Your task to perform on an android device: Clear all items from cart on walmart.com. Add "bose soundlink" to the cart on walmart.com, then select checkout. Image 0: 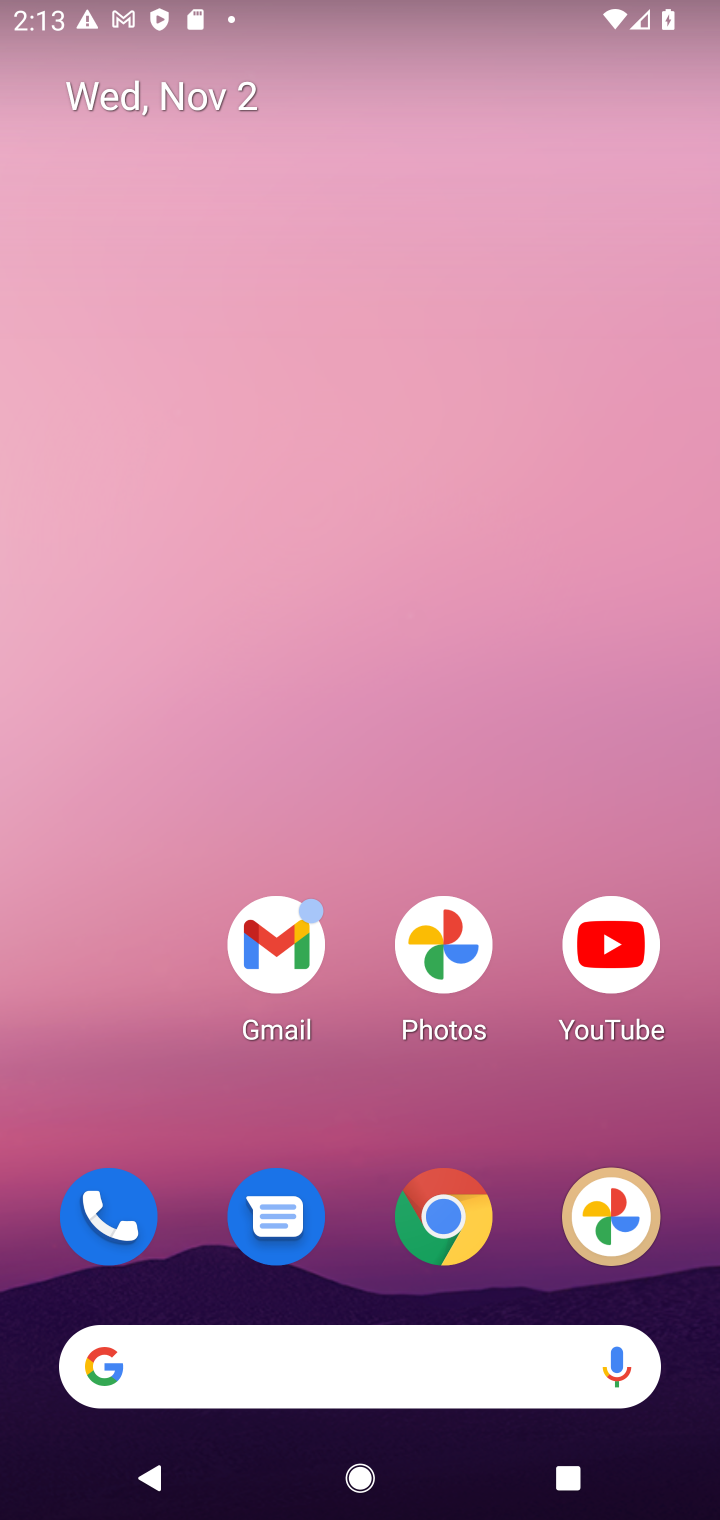
Step 0: click (429, 1223)
Your task to perform on an android device: Clear all items from cart on walmart.com. Add "bose soundlink" to the cart on walmart.com, then select checkout. Image 1: 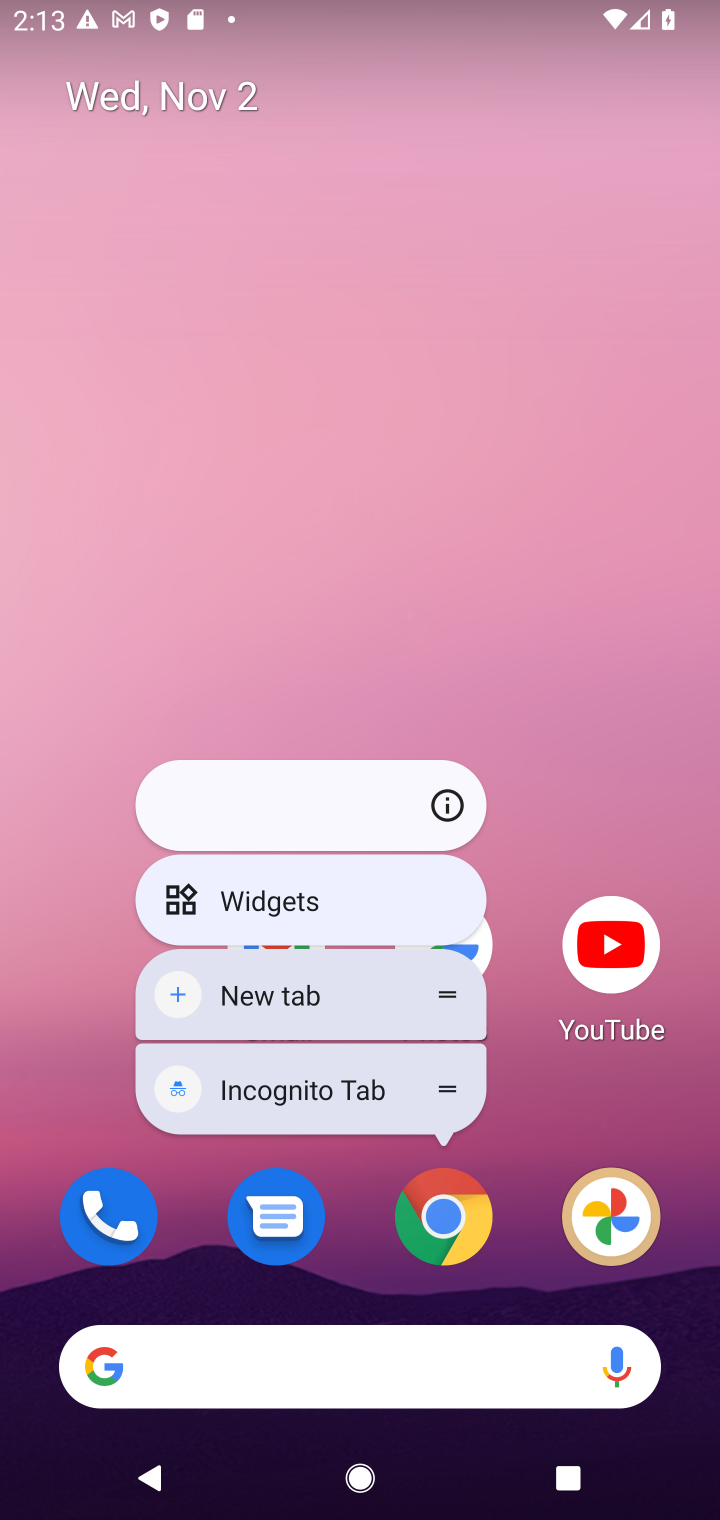
Step 1: click (439, 1199)
Your task to perform on an android device: Clear all items from cart on walmart.com. Add "bose soundlink" to the cart on walmart.com, then select checkout. Image 2: 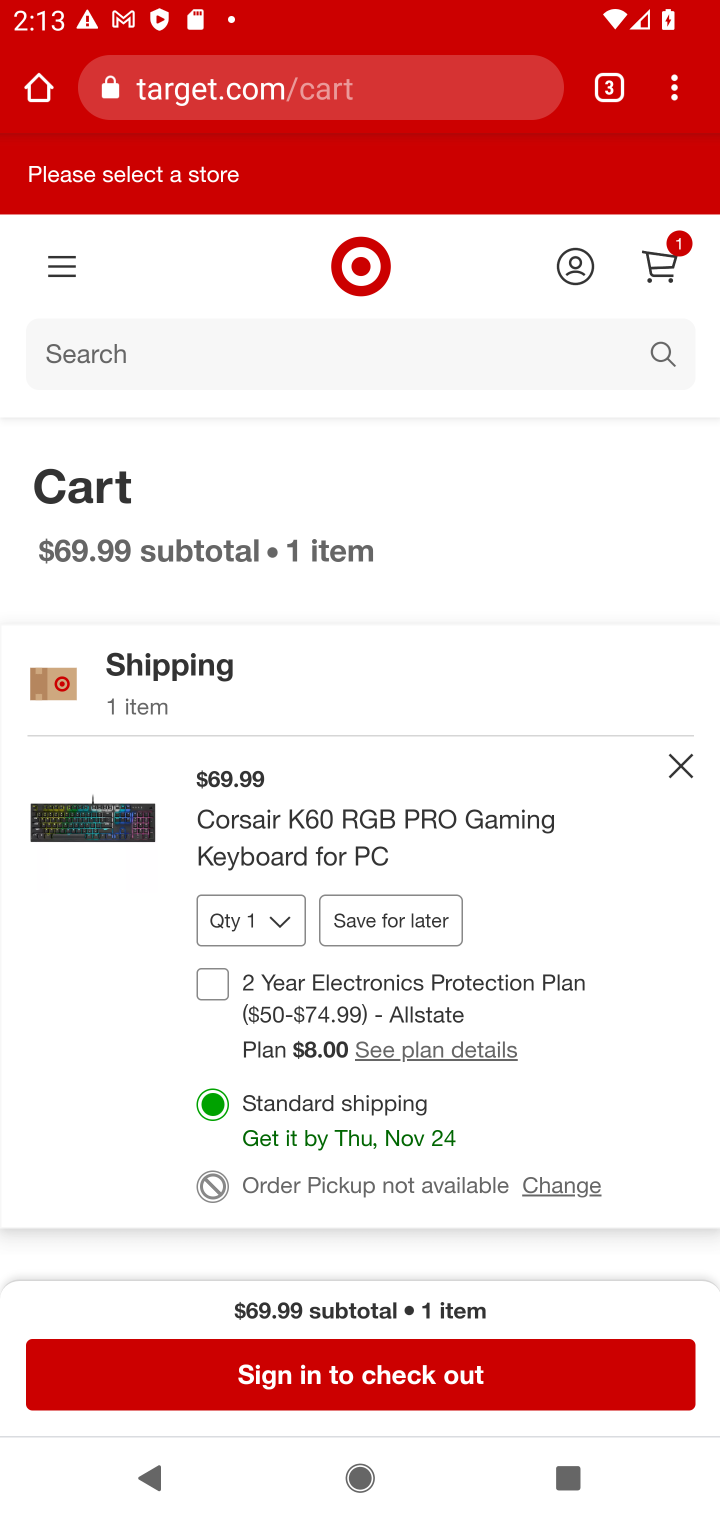
Step 2: click (301, 83)
Your task to perform on an android device: Clear all items from cart on walmart.com. Add "bose soundlink" to the cart on walmart.com, then select checkout. Image 3: 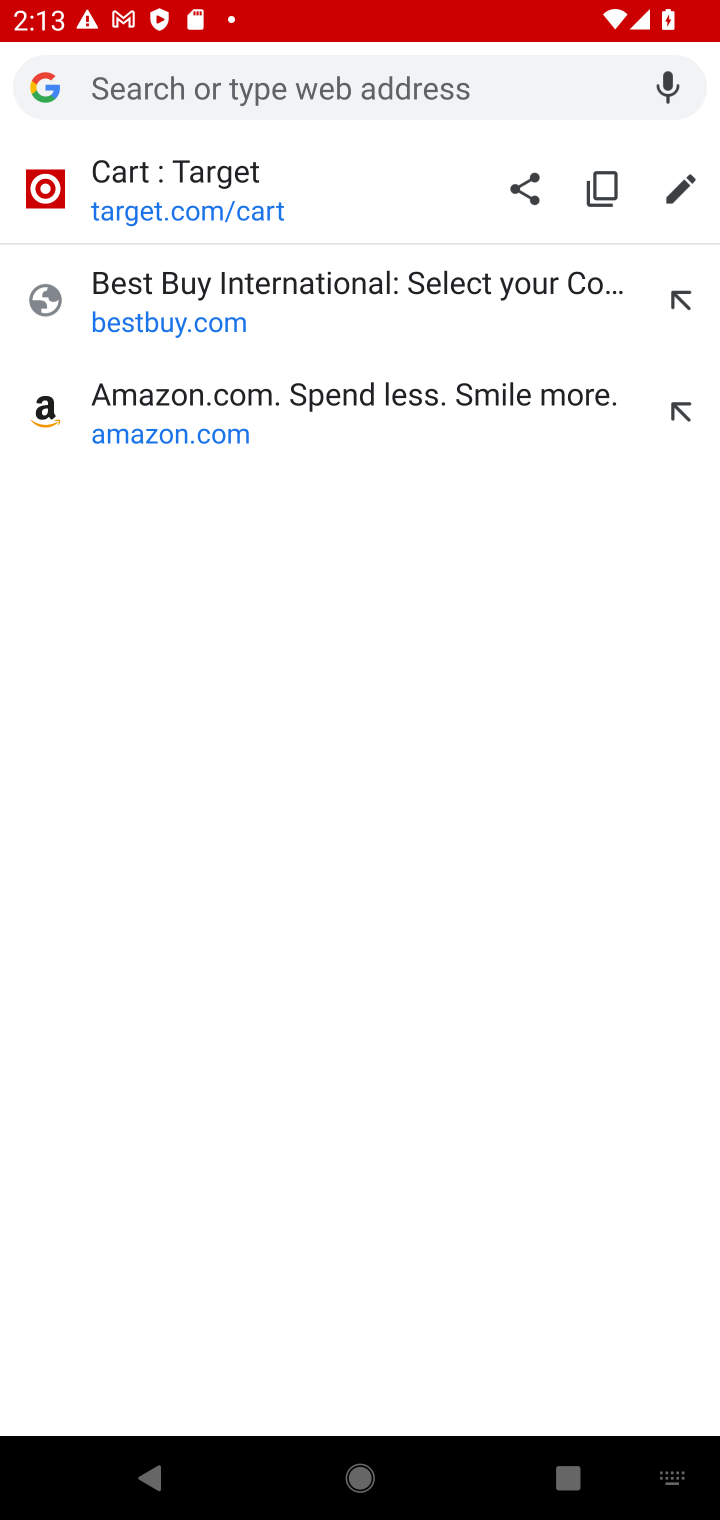
Step 3: type "walmart"
Your task to perform on an android device: Clear all items from cart on walmart.com. Add "bose soundlink" to the cart on walmart.com, then select checkout. Image 4: 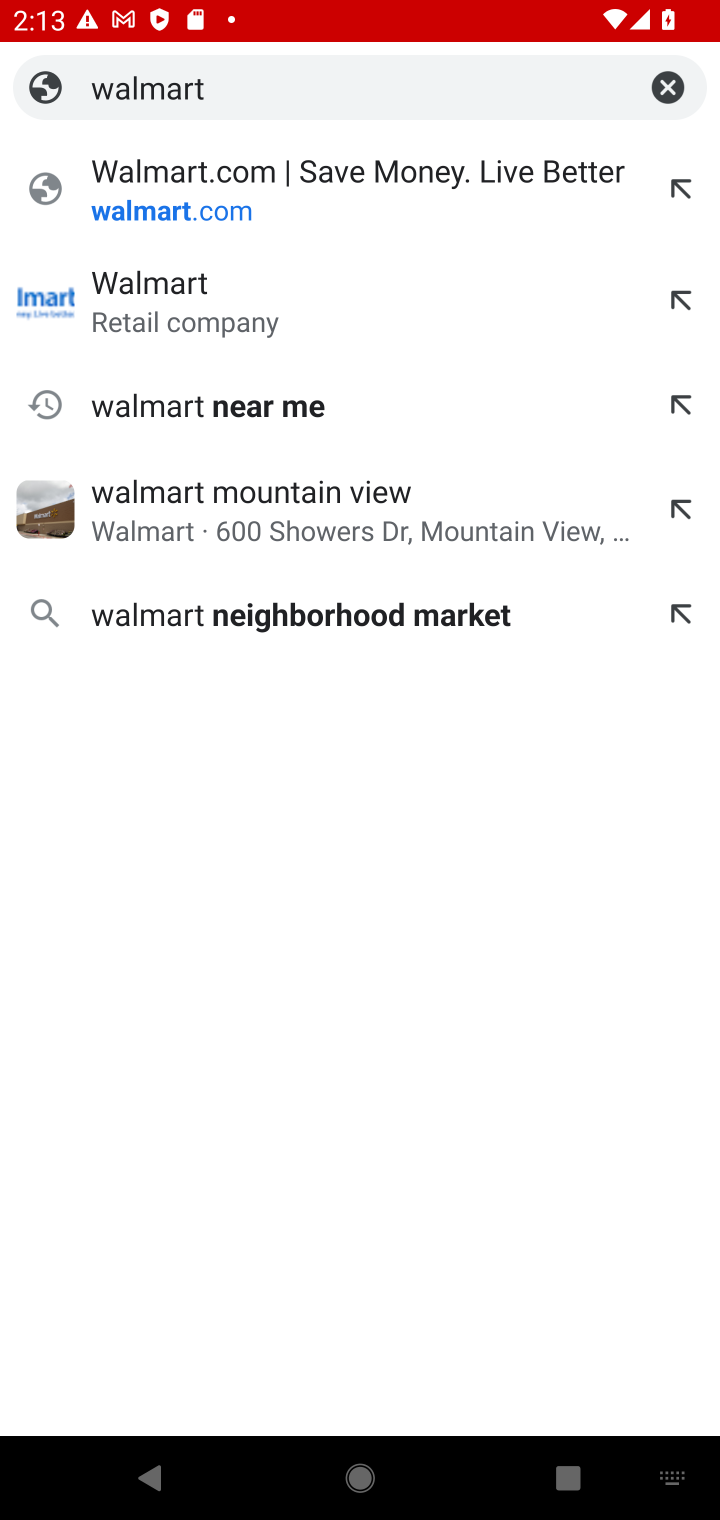
Step 4: click (158, 165)
Your task to perform on an android device: Clear all items from cart on walmart.com. Add "bose soundlink" to the cart on walmart.com, then select checkout. Image 5: 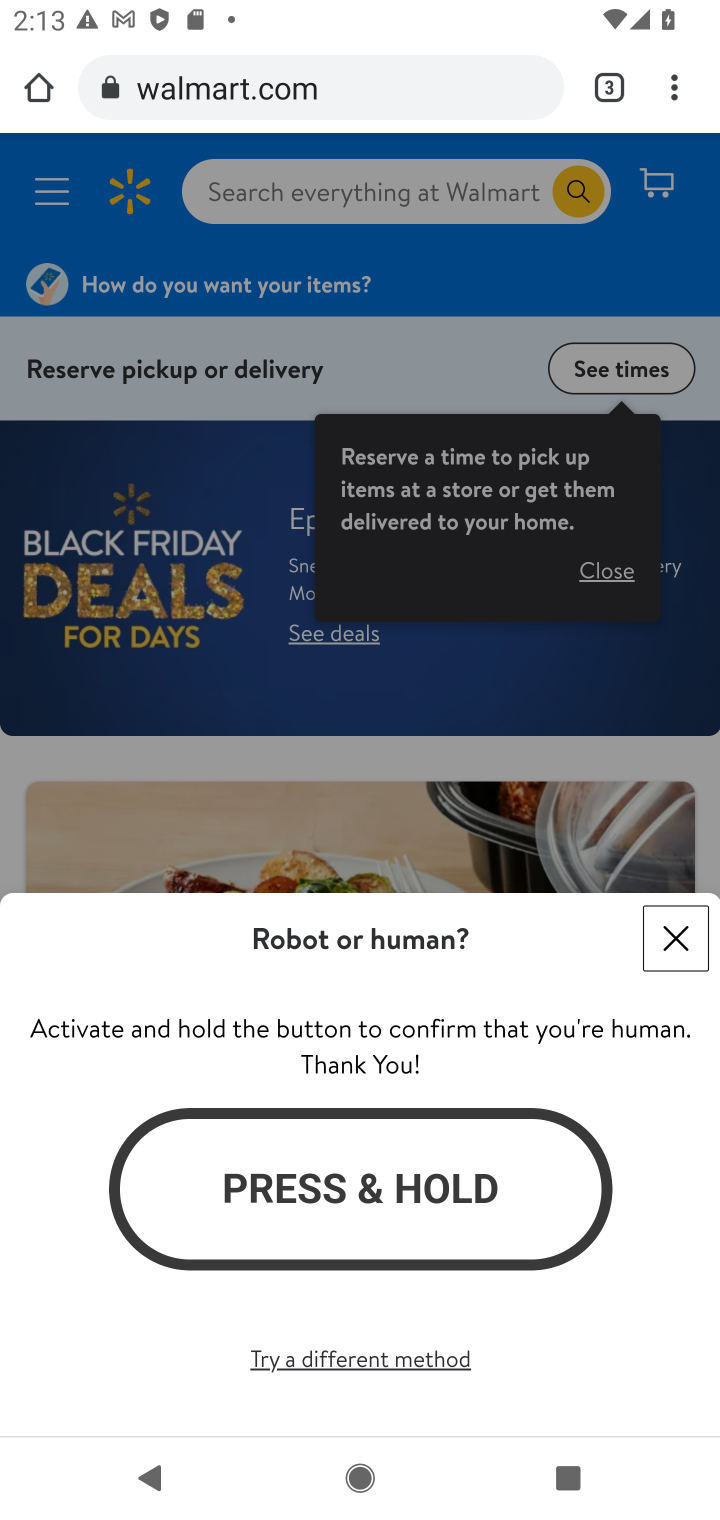
Step 5: click (661, 924)
Your task to perform on an android device: Clear all items from cart on walmart.com. Add "bose soundlink" to the cart on walmart.com, then select checkout. Image 6: 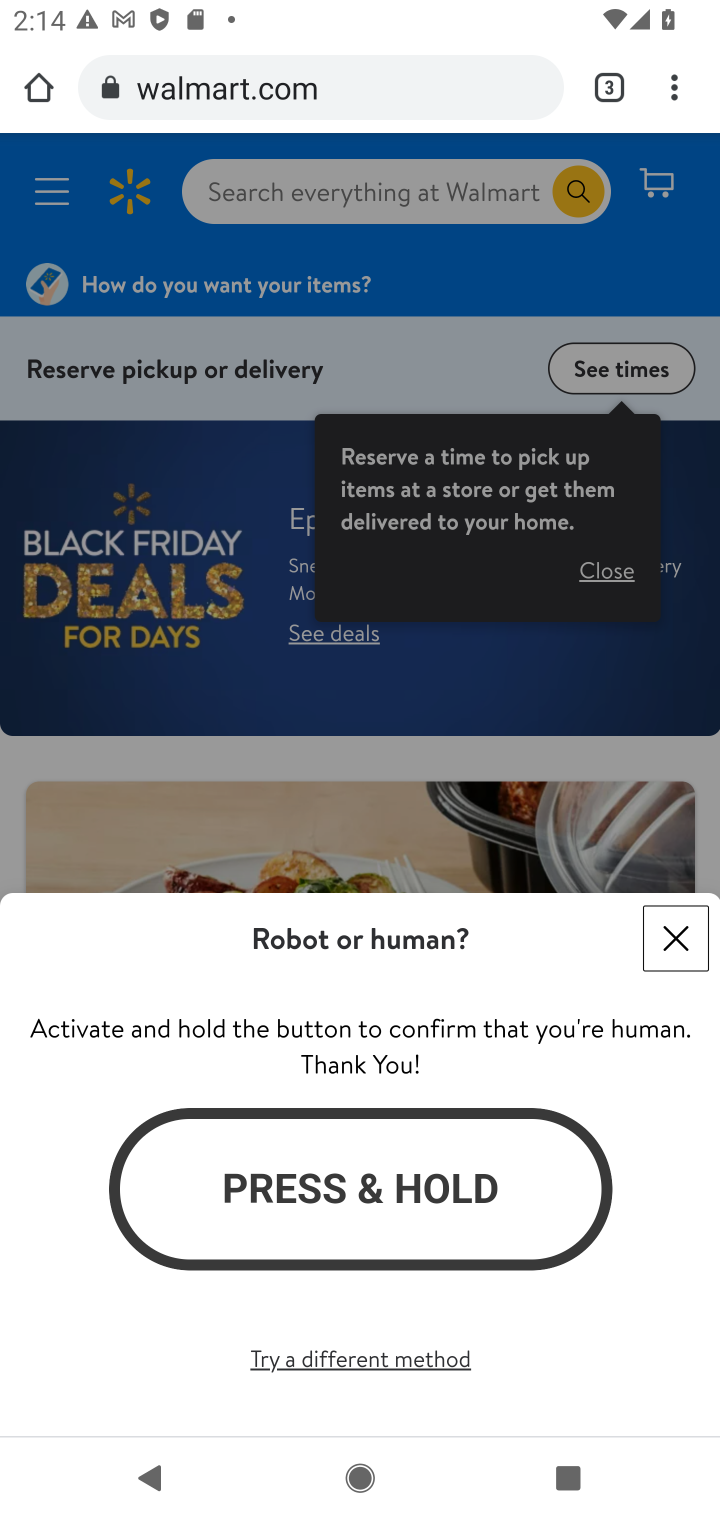
Step 6: click (387, 1192)
Your task to perform on an android device: Clear all items from cart on walmart.com. Add "bose soundlink" to the cart on walmart.com, then select checkout. Image 7: 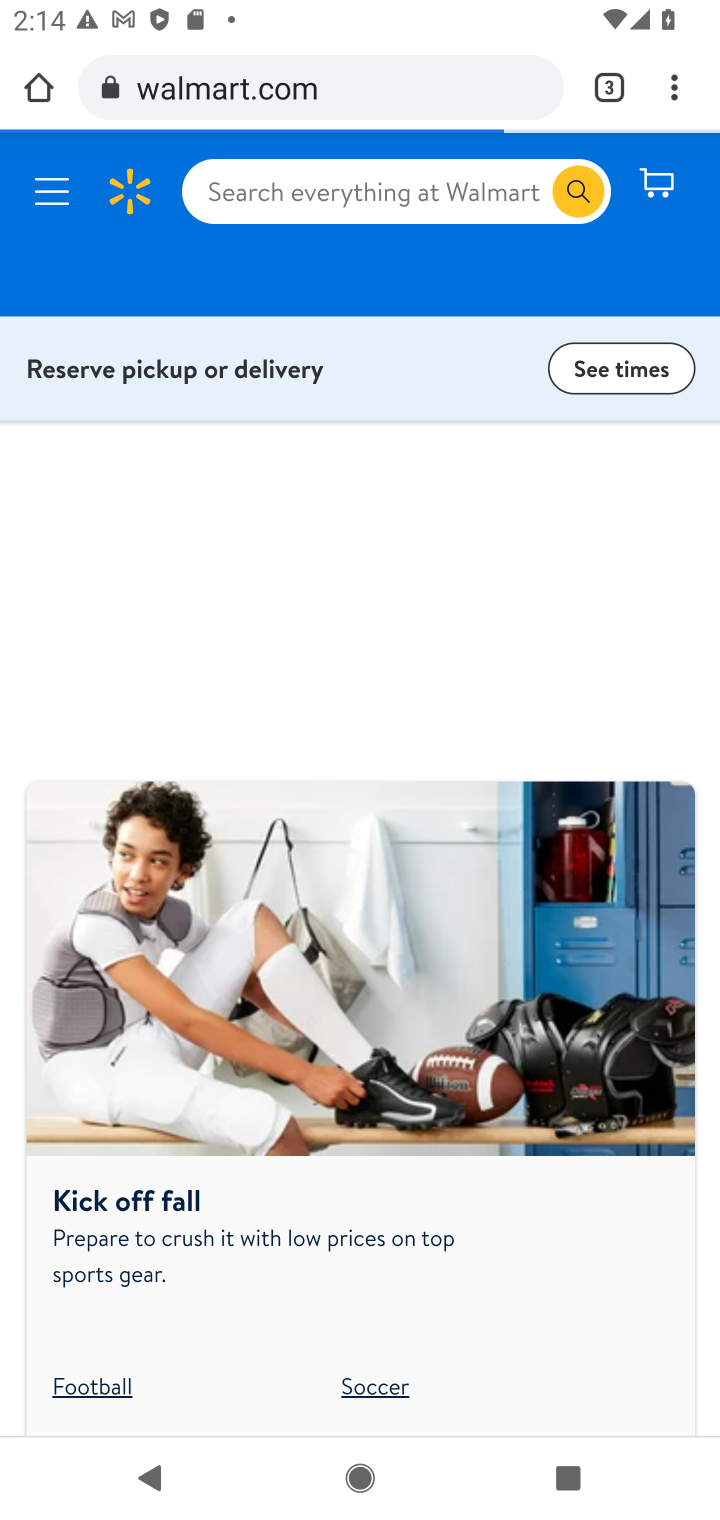
Step 7: click (681, 1156)
Your task to perform on an android device: Clear all items from cart on walmart.com. Add "bose soundlink" to the cart on walmart.com, then select checkout. Image 8: 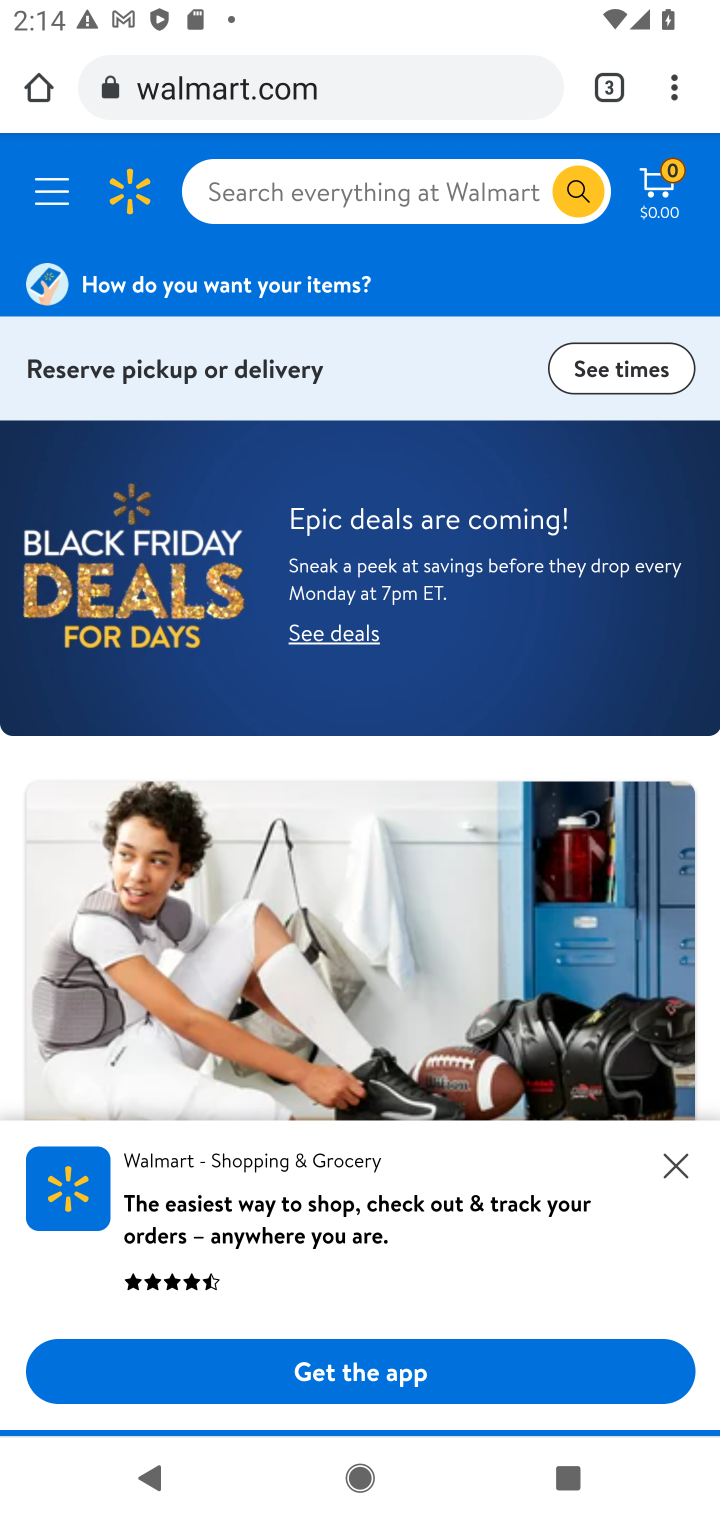
Step 8: click (437, 195)
Your task to perform on an android device: Clear all items from cart on walmart.com. Add "bose soundlink" to the cart on walmart.com, then select checkout. Image 9: 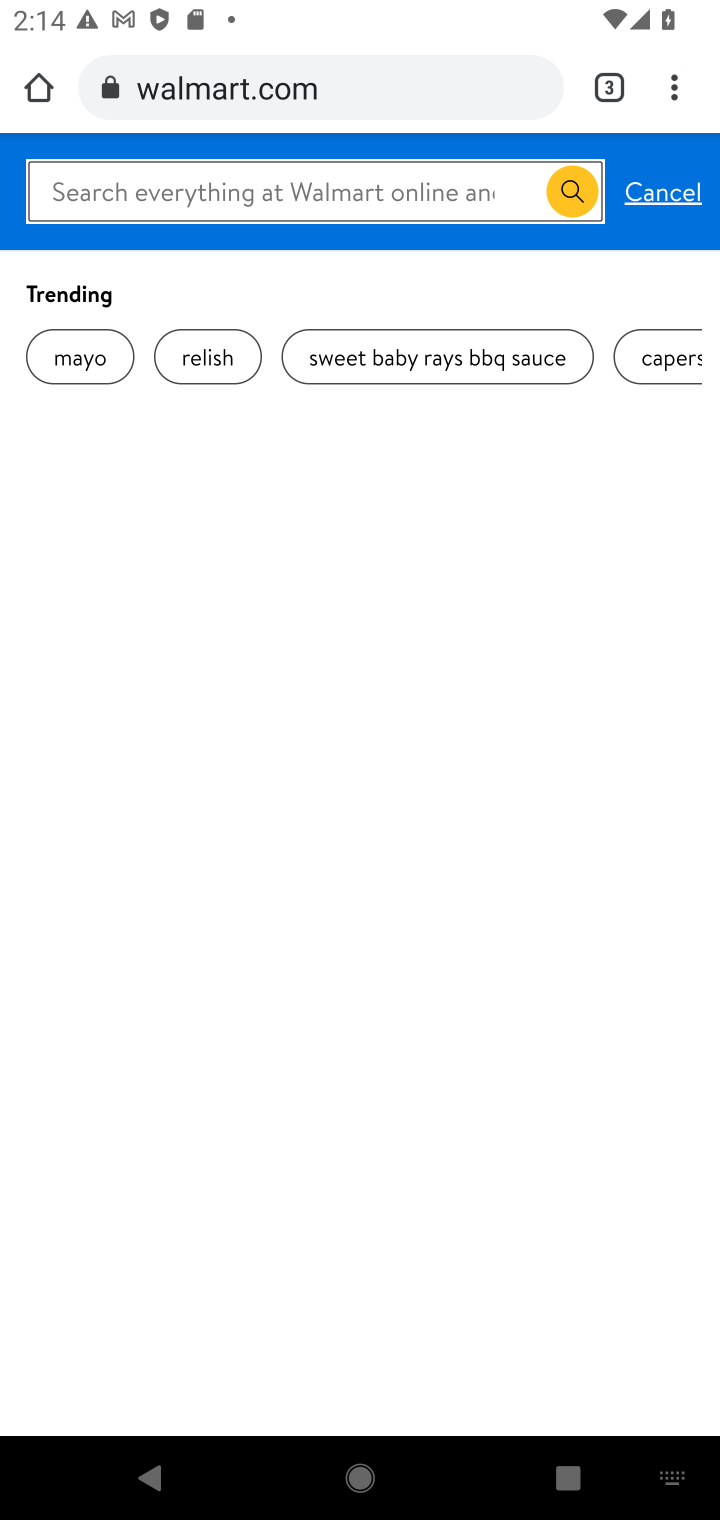
Step 9: type "bose soundlink"
Your task to perform on an android device: Clear all items from cart on walmart.com. Add "bose soundlink" to the cart on walmart.com, then select checkout. Image 10: 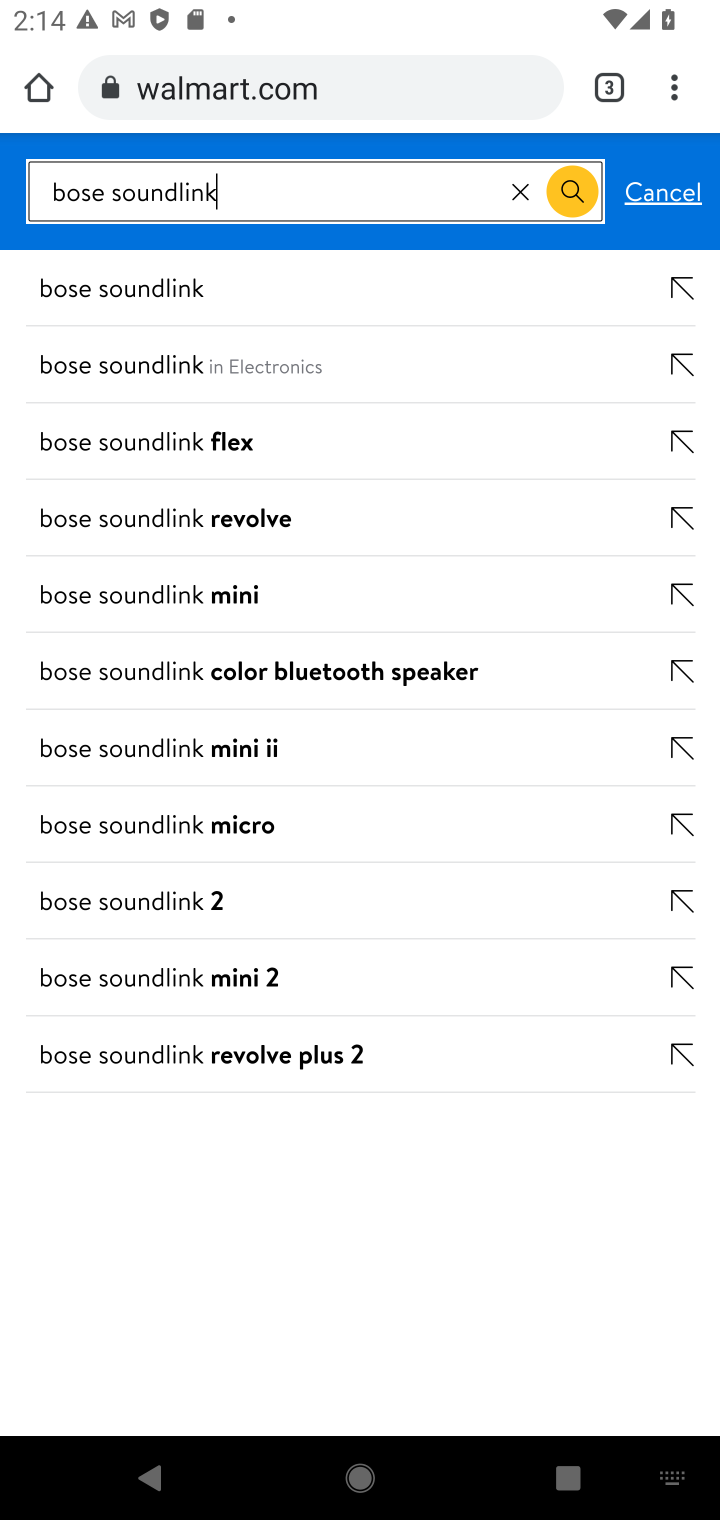
Step 10: click (169, 373)
Your task to perform on an android device: Clear all items from cart on walmart.com. Add "bose soundlink" to the cart on walmart.com, then select checkout. Image 11: 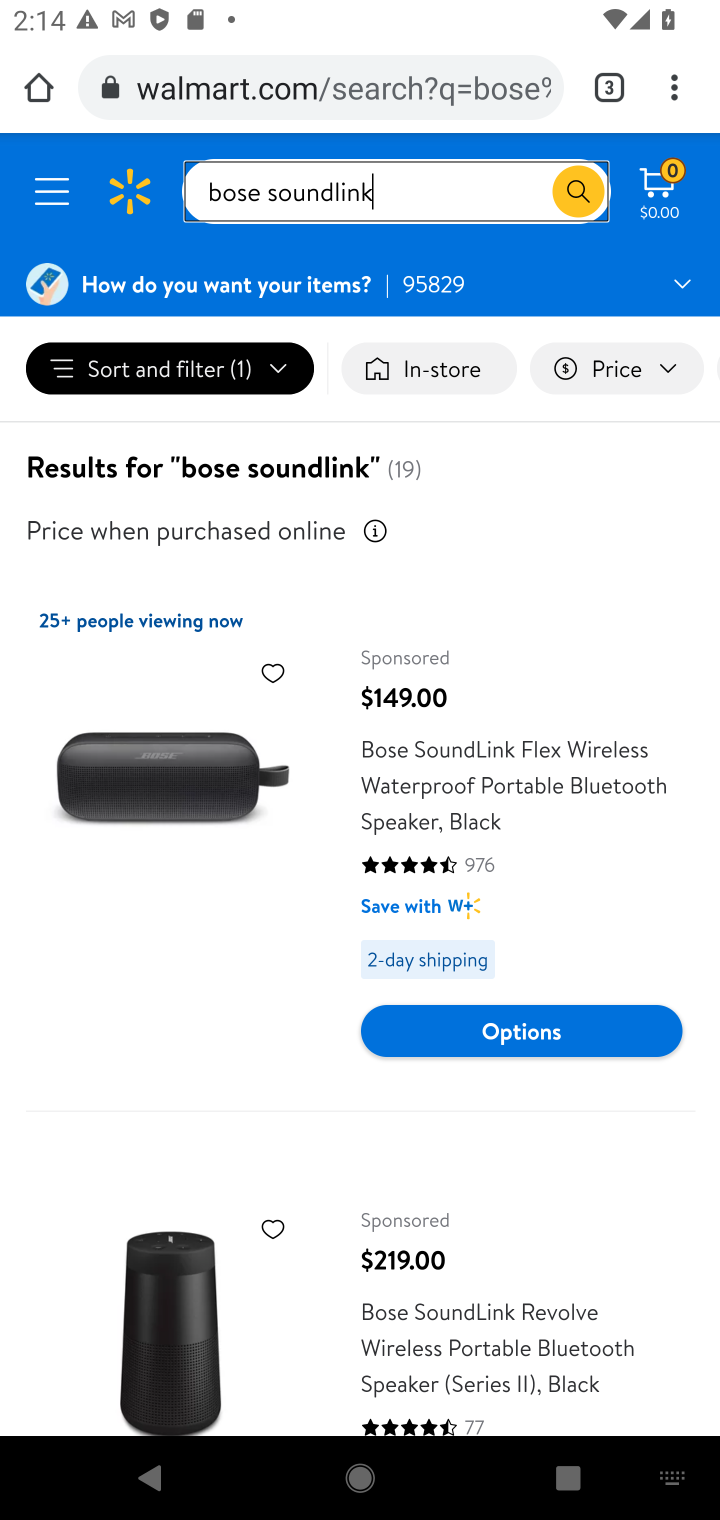
Step 11: click (535, 833)
Your task to perform on an android device: Clear all items from cart on walmart.com. Add "bose soundlink" to the cart on walmart.com, then select checkout. Image 12: 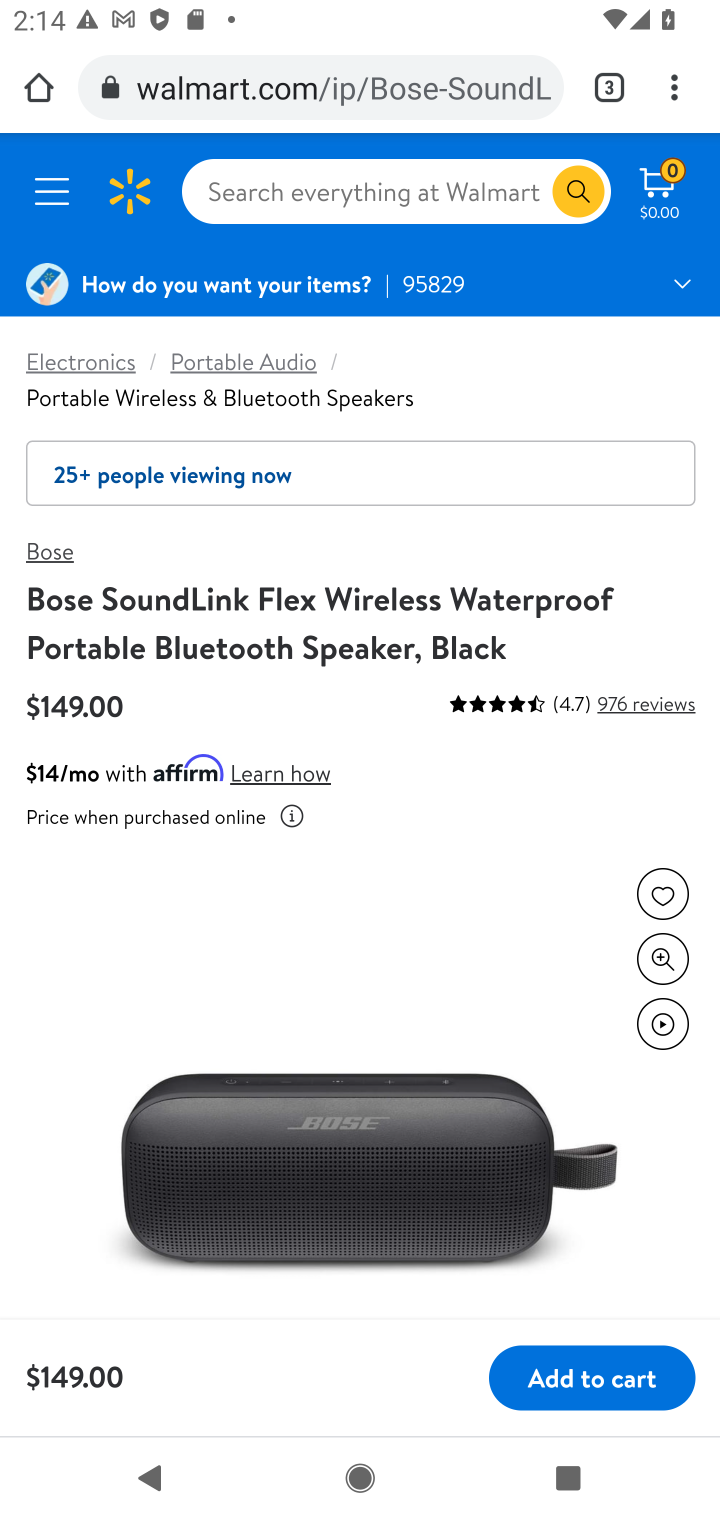
Step 12: click (588, 1377)
Your task to perform on an android device: Clear all items from cart on walmart.com. Add "bose soundlink" to the cart on walmart.com, then select checkout. Image 13: 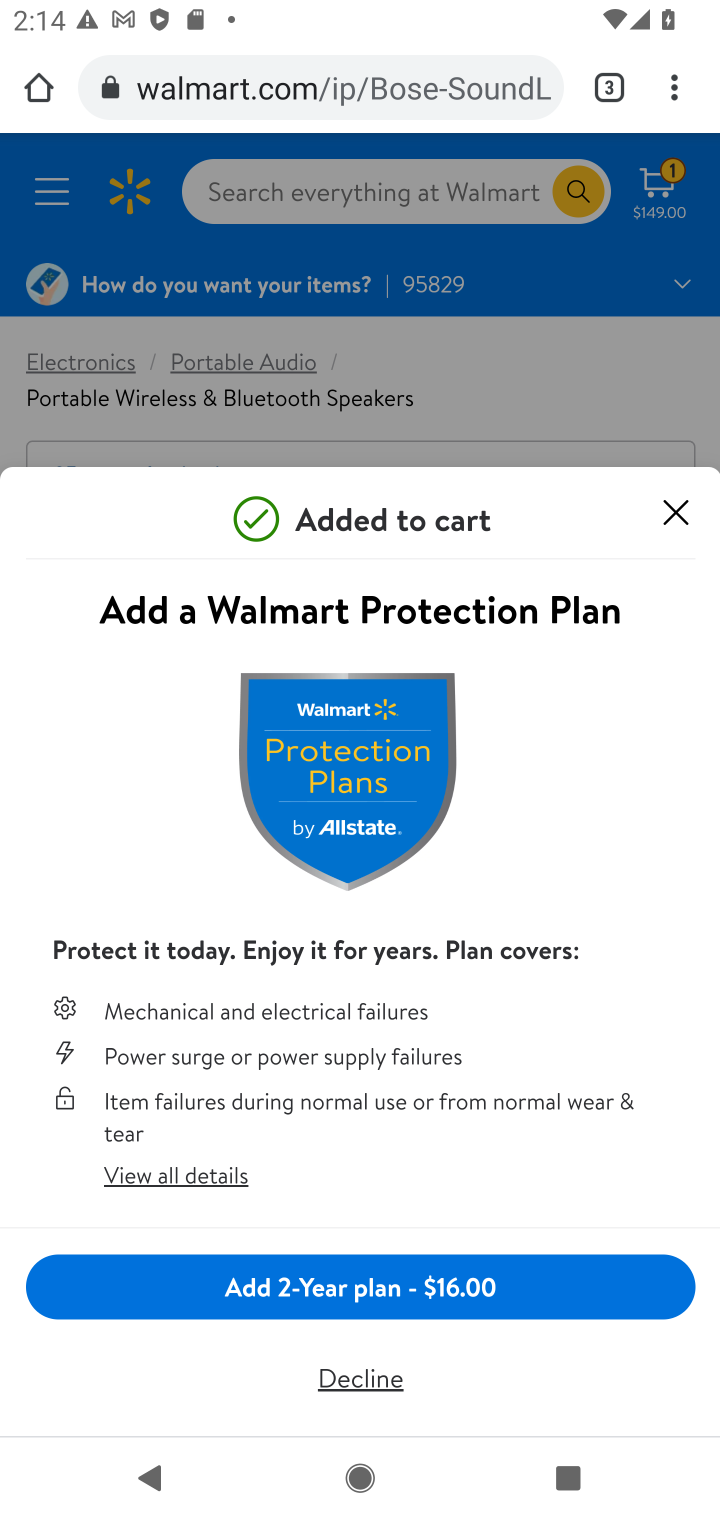
Step 13: click (372, 1386)
Your task to perform on an android device: Clear all items from cart on walmart.com. Add "bose soundlink" to the cart on walmart.com, then select checkout. Image 14: 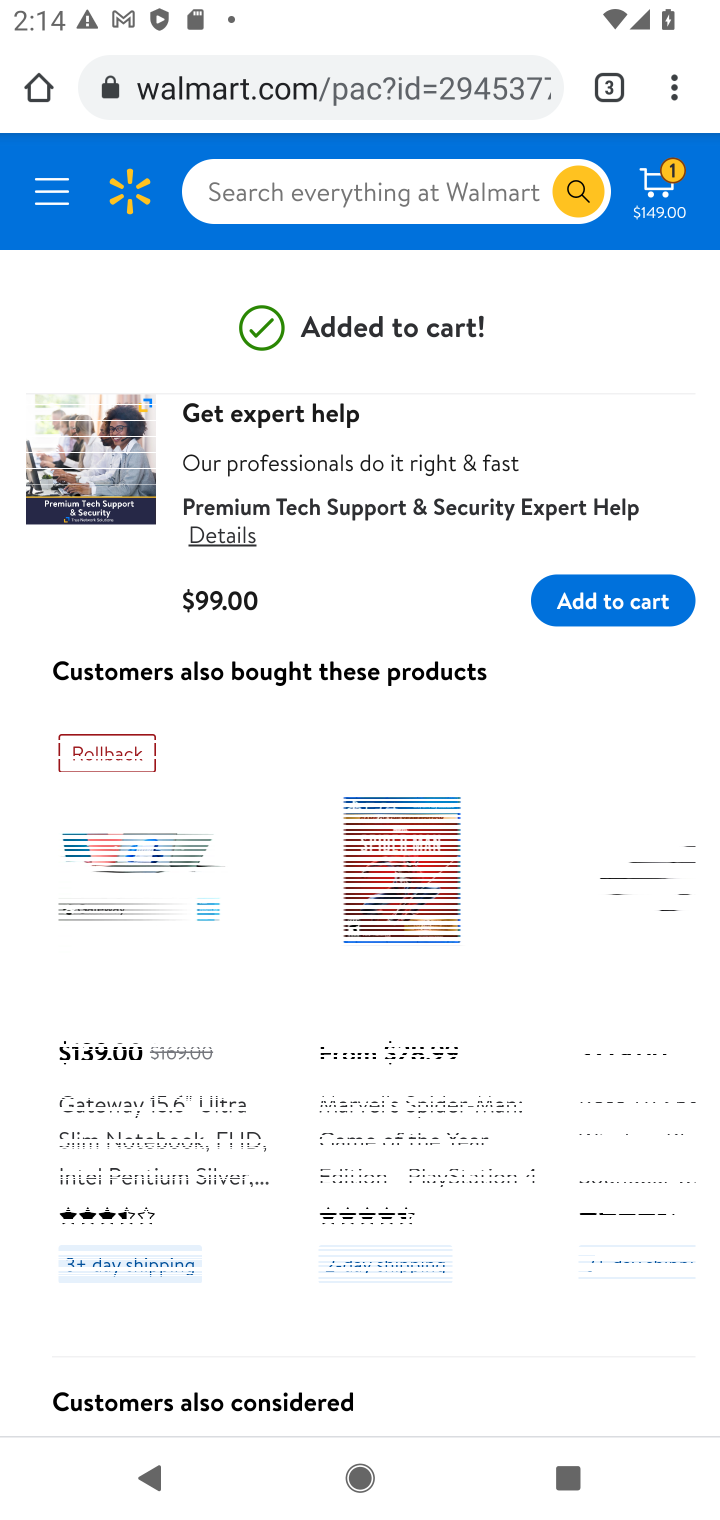
Step 14: task complete